Your task to perform on an android device: turn on notifications settings in the gmail app Image 0: 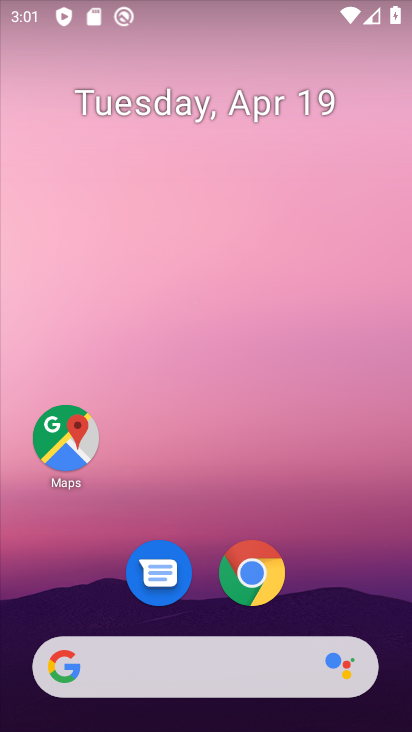
Step 0: drag from (309, 577) to (320, 131)
Your task to perform on an android device: turn on notifications settings in the gmail app Image 1: 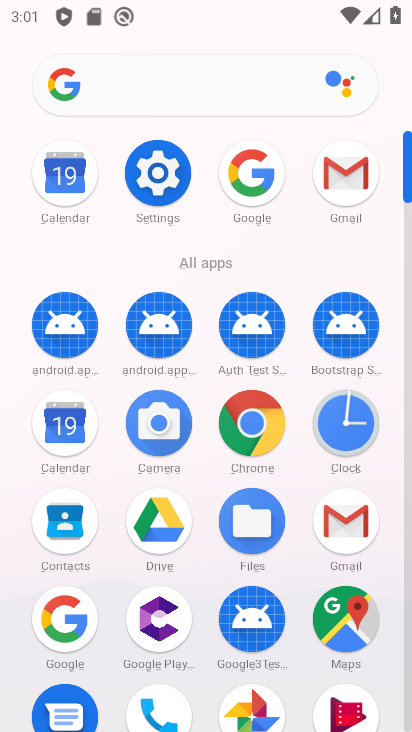
Step 1: click (353, 202)
Your task to perform on an android device: turn on notifications settings in the gmail app Image 2: 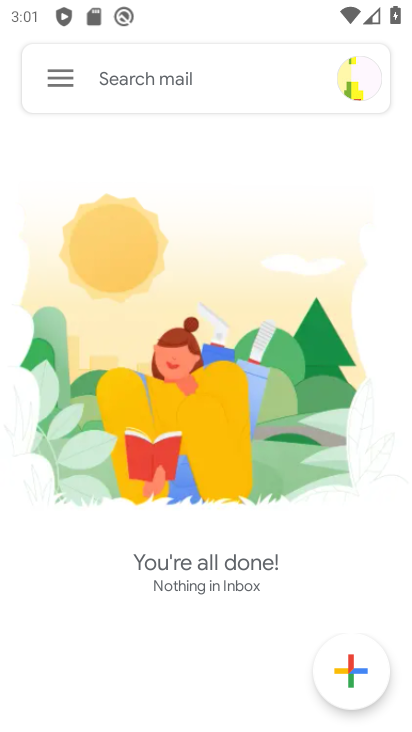
Step 2: click (58, 89)
Your task to perform on an android device: turn on notifications settings in the gmail app Image 3: 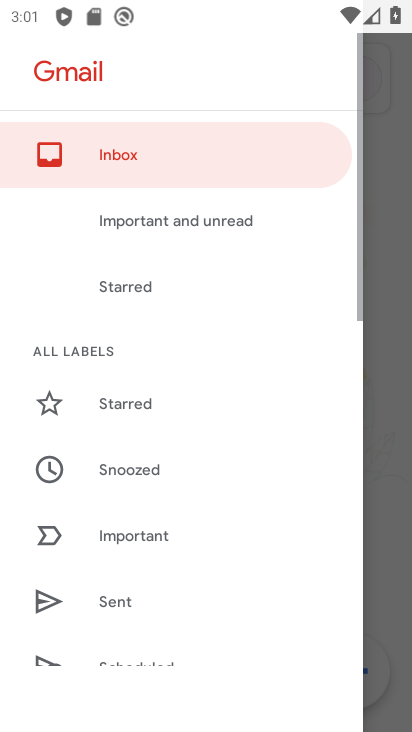
Step 3: drag from (104, 644) to (130, 267)
Your task to perform on an android device: turn on notifications settings in the gmail app Image 4: 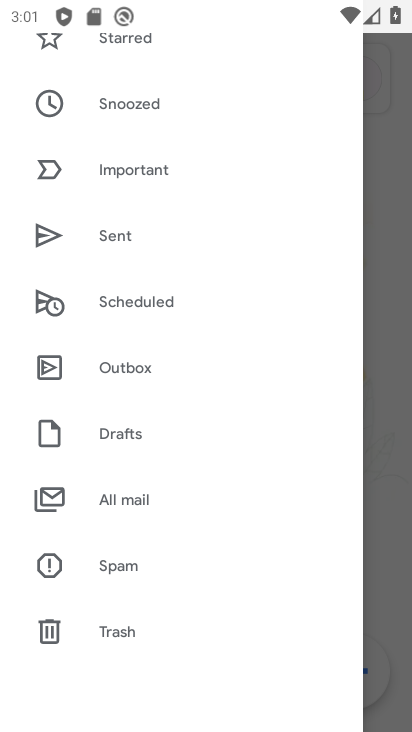
Step 4: drag from (158, 608) to (177, 284)
Your task to perform on an android device: turn on notifications settings in the gmail app Image 5: 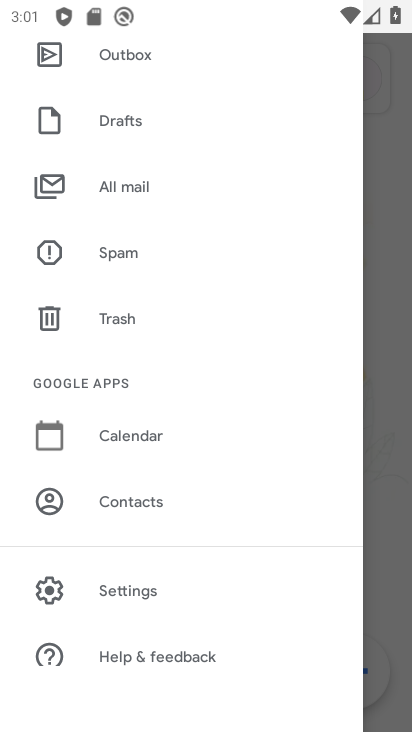
Step 5: click (141, 588)
Your task to perform on an android device: turn on notifications settings in the gmail app Image 6: 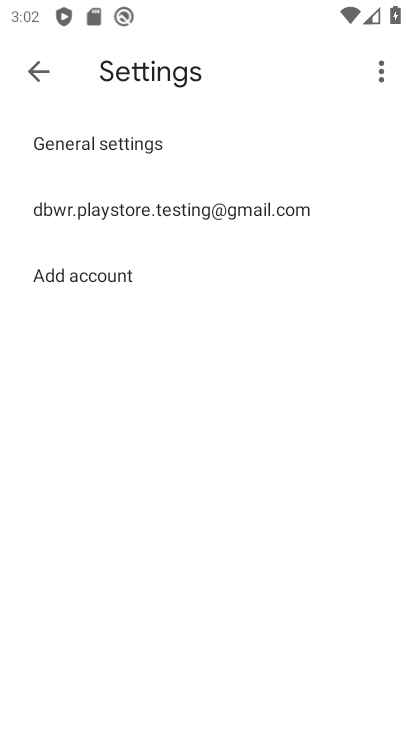
Step 6: click (202, 211)
Your task to perform on an android device: turn on notifications settings in the gmail app Image 7: 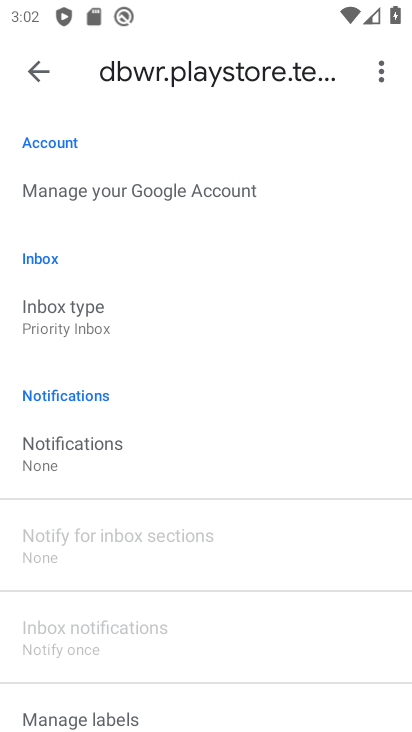
Step 7: click (83, 460)
Your task to perform on an android device: turn on notifications settings in the gmail app Image 8: 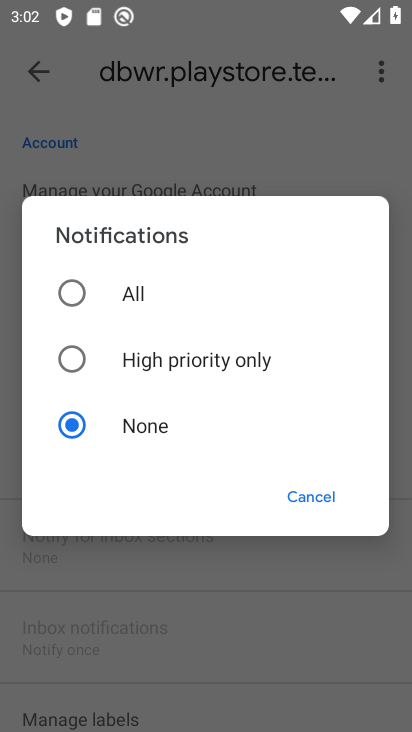
Step 8: click (109, 297)
Your task to perform on an android device: turn on notifications settings in the gmail app Image 9: 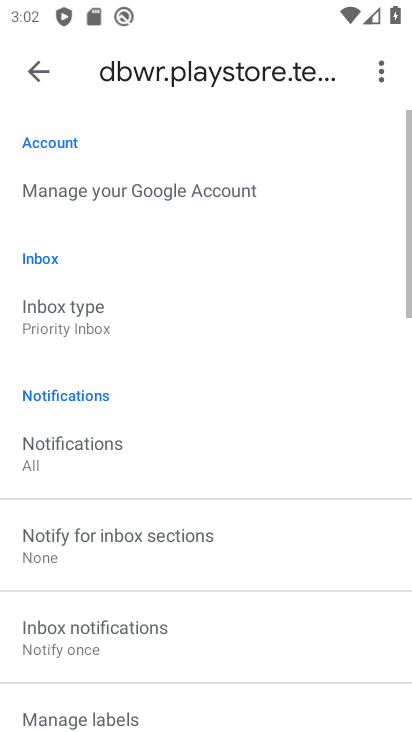
Step 9: task complete